Your task to perform on an android device: Show me popular games on the Play Store Image 0: 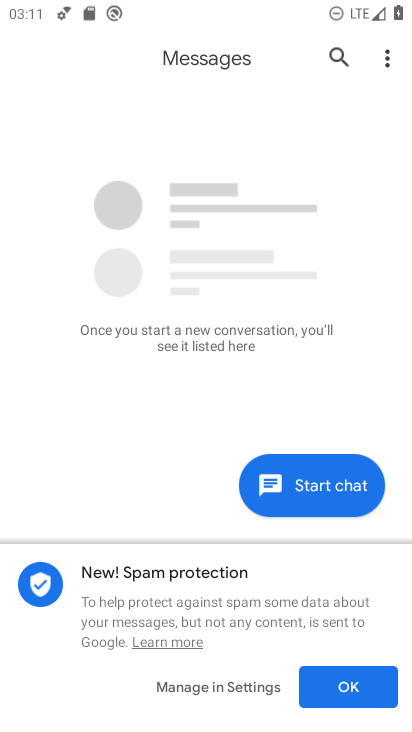
Step 0: press home button
Your task to perform on an android device: Show me popular games on the Play Store Image 1: 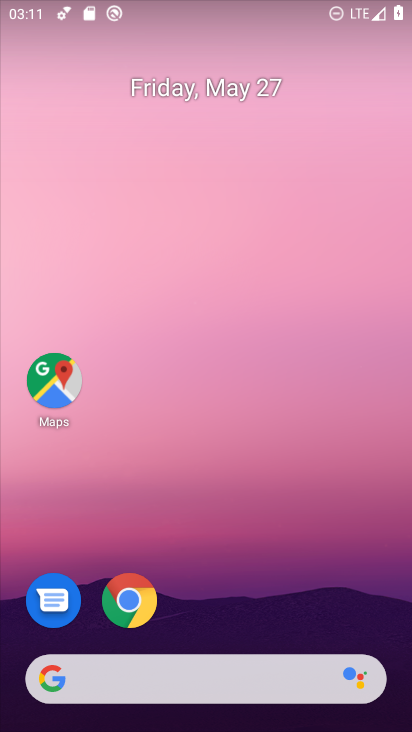
Step 1: drag from (221, 721) to (230, 210)
Your task to perform on an android device: Show me popular games on the Play Store Image 2: 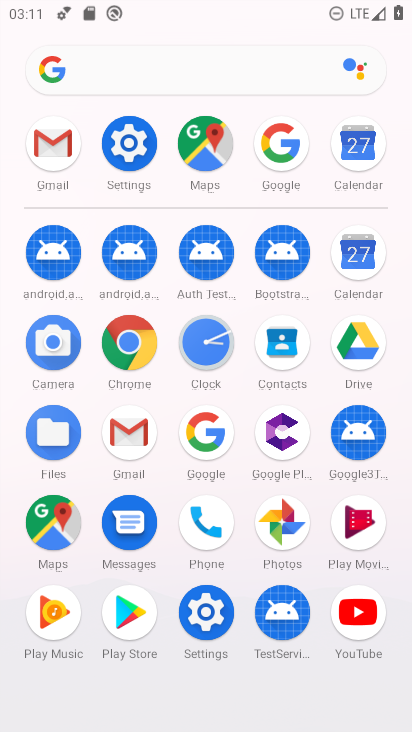
Step 2: click (124, 614)
Your task to perform on an android device: Show me popular games on the Play Store Image 3: 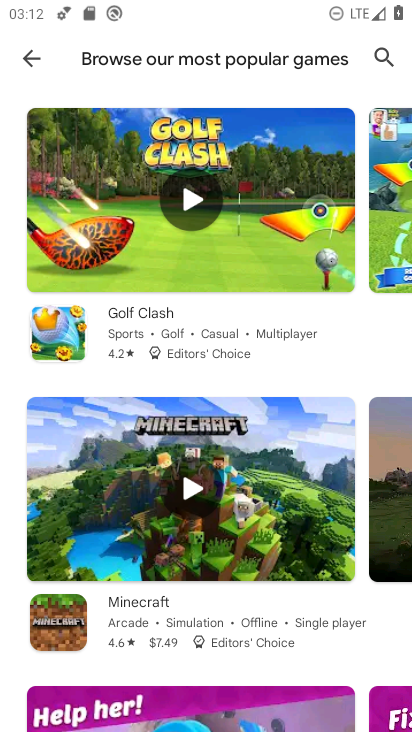
Step 3: task complete